Your task to perform on an android device: check storage Image 0: 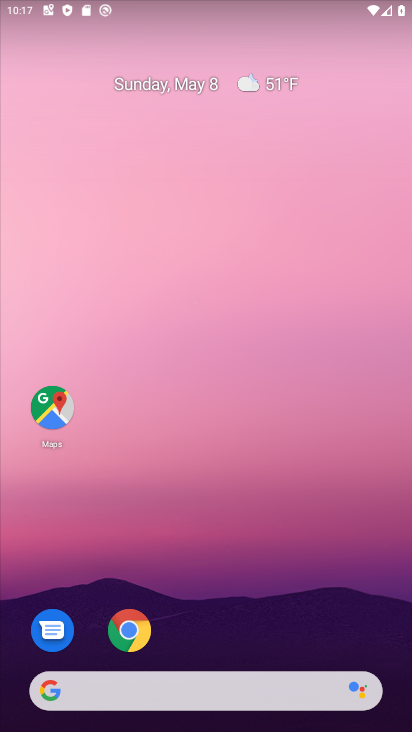
Step 0: drag from (348, 626) to (158, 90)
Your task to perform on an android device: check storage Image 1: 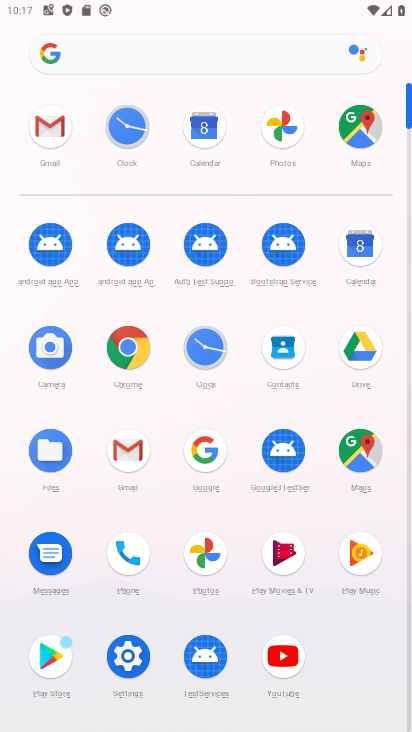
Step 1: click (135, 653)
Your task to perform on an android device: check storage Image 2: 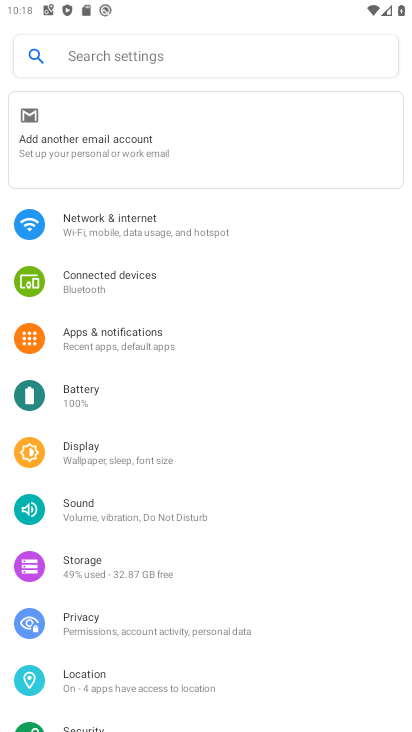
Step 2: click (106, 568)
Your task to perform on an android device: check storage Image 3: 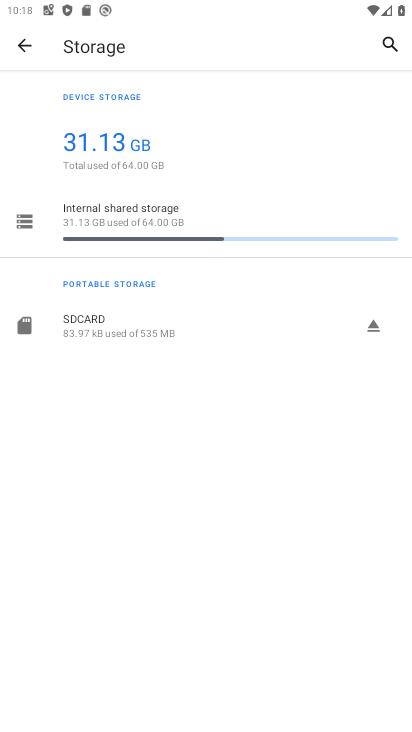
Step 3: click (174, 203)
Your task to perform on an android device: check storage Image 4: 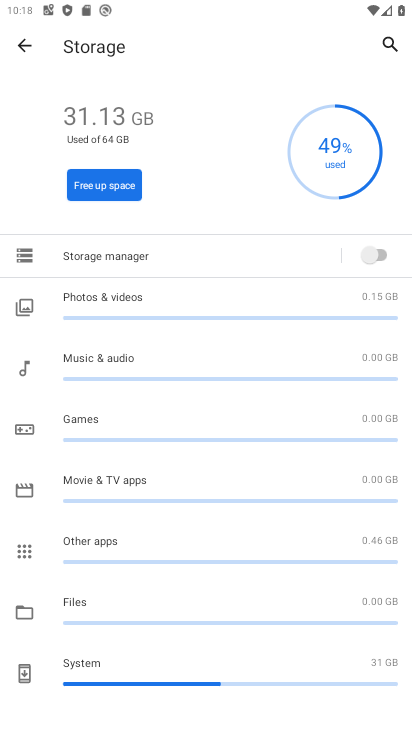
Step 4: task complete